Your task to perform on an android device: Go to location settings Image 0: 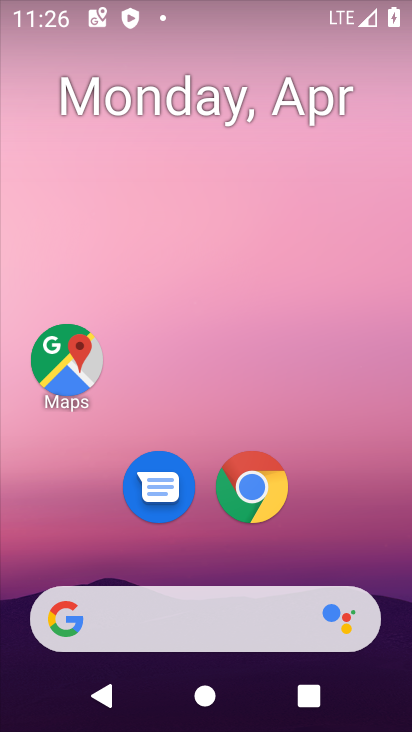
Step 0: drag from (388, 564) to (251, 97)
Your task to perform on an android device: Go to location settings Image 1: 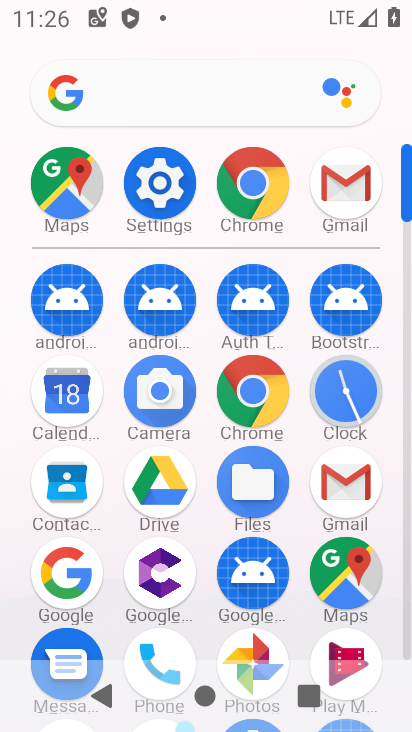
Step 1: click (171, 168)
Your task to perform on an android device: Go to location settings Image 2: 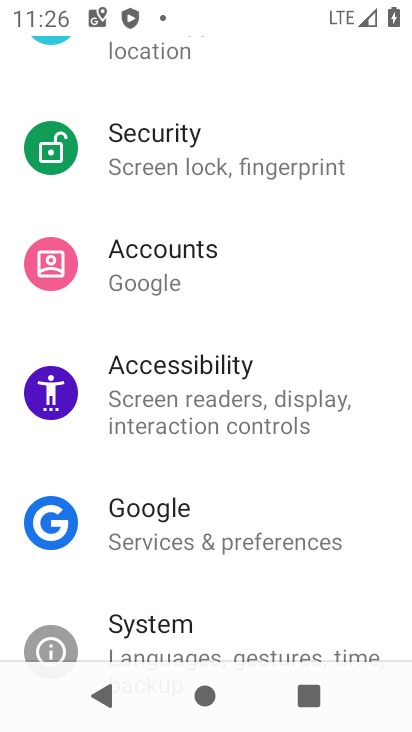
Step 2: drag from (285, 209) to (270, 444)
Your task to perform on an android device: Go to location settings Image 3: 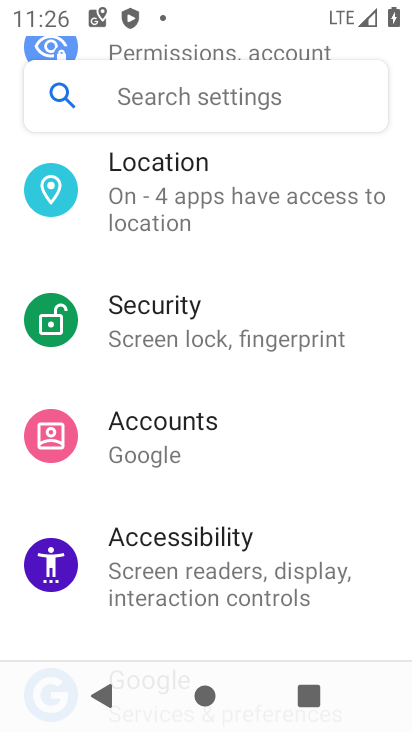
Step 3: click (263, 205)
Your task to perform on an android device: Go to location settings Image 4: 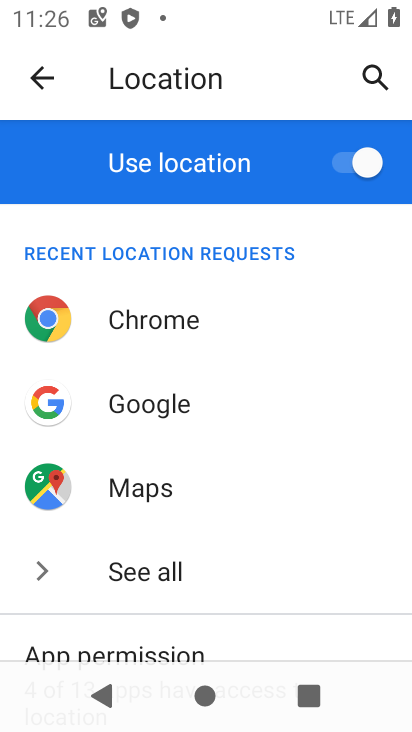
Step 4: task complete